Your task to perform on an android device: turn on priority inbox in the gmail app Image 0: 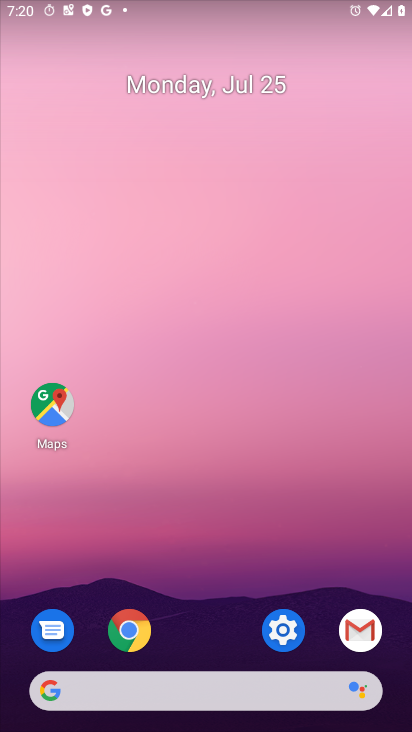
Step 0: click (36, 392)
Your task to perform on an android device: turn on priority inbox in the gmail app Image 1: 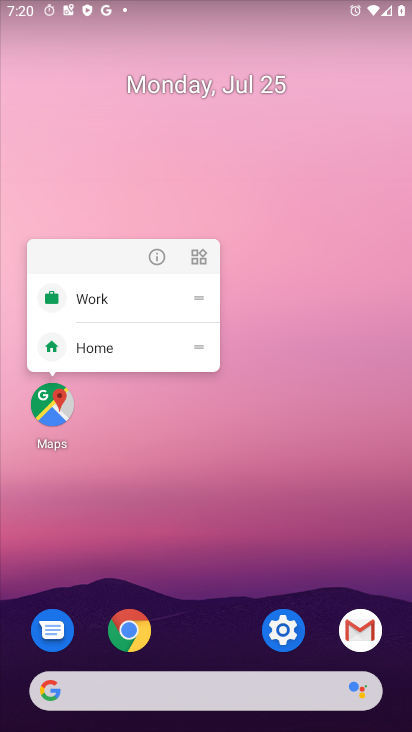
Step 1: click (339, 633)
Your task to perform on an android device: turn on priority inbox in the gmail app Image 2: 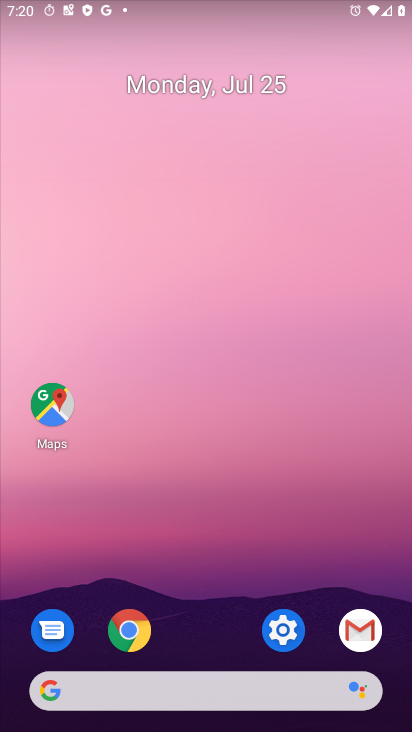
Step 2: click (352, 641)
Your task to perform on an android device: turn on priority inbox in the gmail app Image 3: 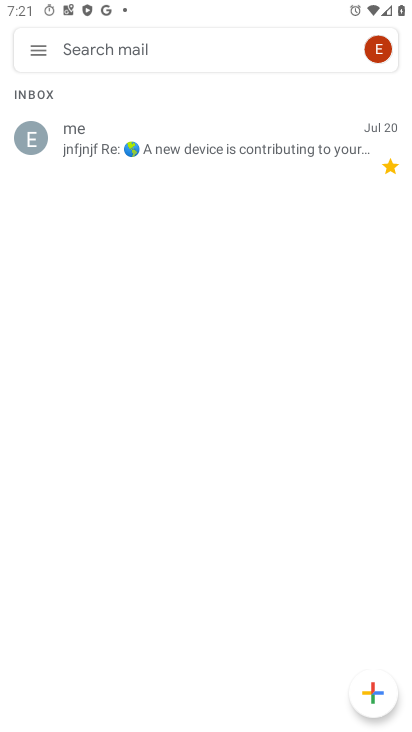
Step 3: click (36, 68)
Your task to perform on an android device: turn on priority inbox in the gmail app Image 4: 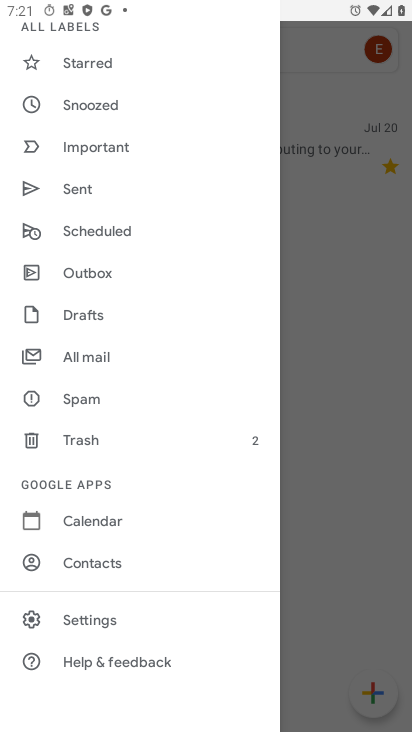
Step 4: click (85, 615)
Your task to perform on an android device: turn on priority inbox in the gmail app Image 5: 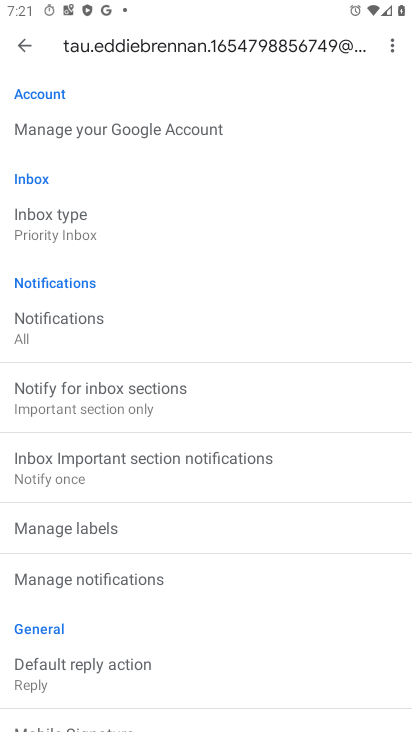
Step 5: click (74, 235)
Your task to perform on an android device: turn on priority inbox in the gmail app Image 6: 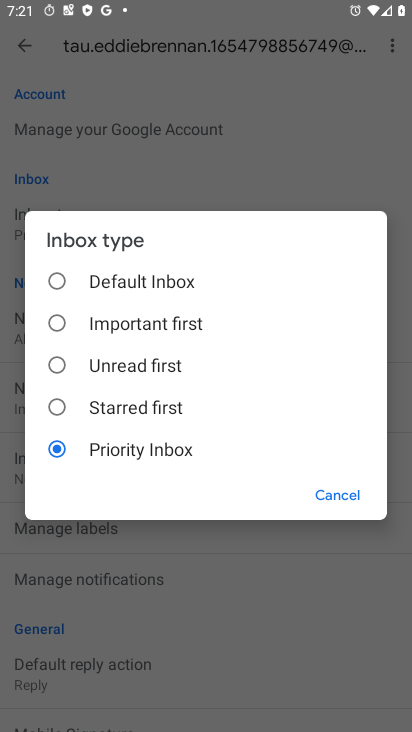
Step 6: task complete